Your task to perform on an android device: Open calendar and show me the fourth week of next month Image 0: 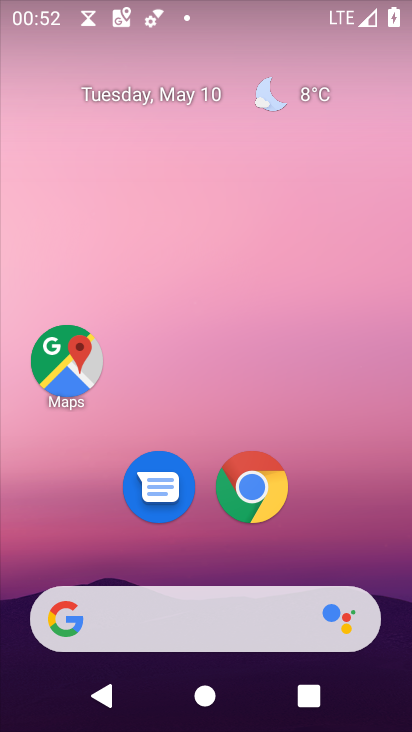
Step 0: drag from (203, 546) to (243, 64)
Your task to perform on an android device: Open calendar and show me the fourth week of next month Image 1: 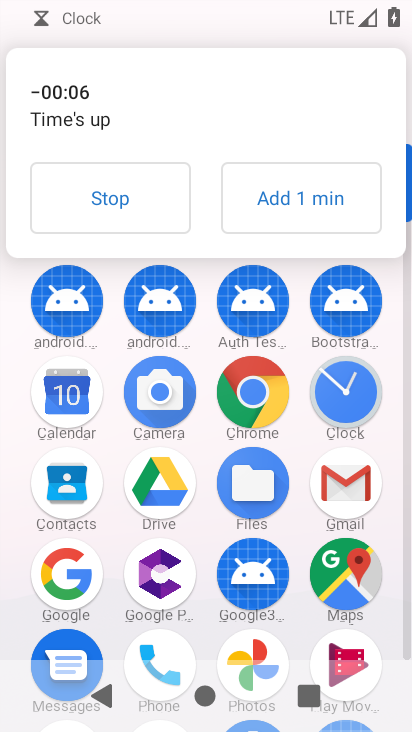
Step 1: click (117, 191)
Your task to perform on an android device: Open calendar and show me the fourth week of next month Image 2: 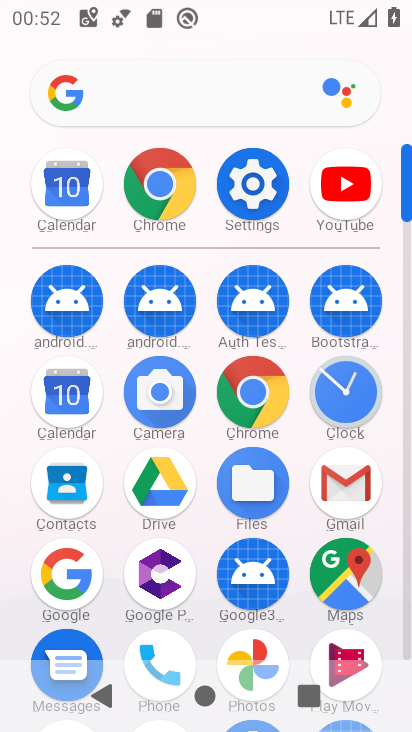
Step 2: click (71, 388)
Your task to perform on an android device: Open calendar and show me the fourth week of next month Image 3: 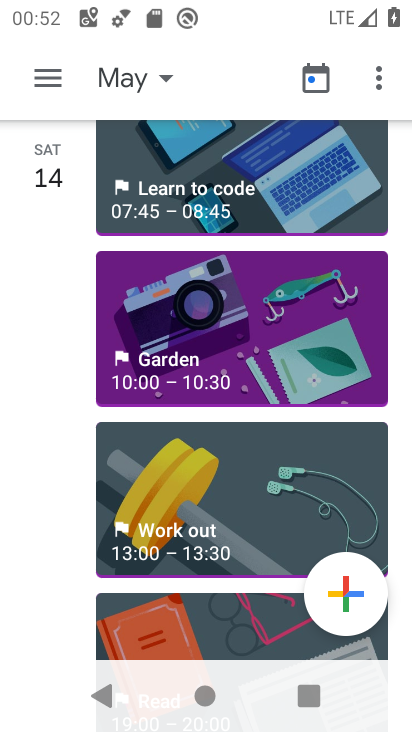
Step 3: click (44, 79)
Your task to perform on an android device: Open calendar and show me the fourth week of next month Image 4: 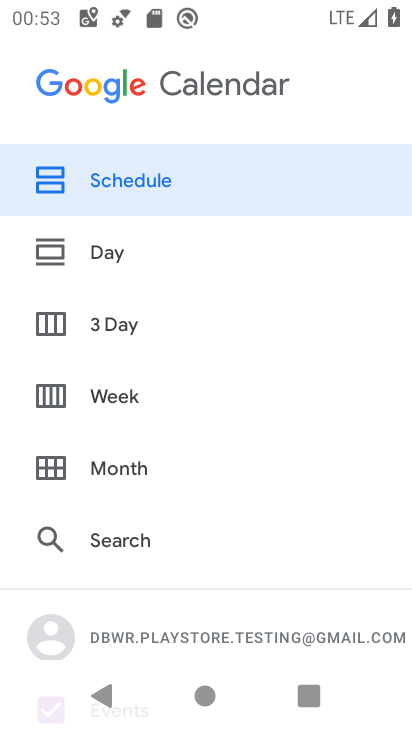
Step 4: click (76, 393)
Your task to perform on an android device: Open calendar and show me the fourth week of next month Image 5: 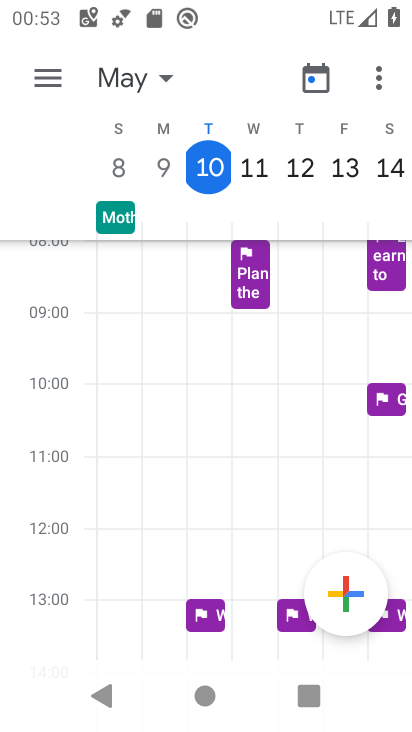
Step 5: drag from (390, 157) to (52, 140)
Your task to perform on an android device: Open calendar and show me the fourth week of next month Image 6: 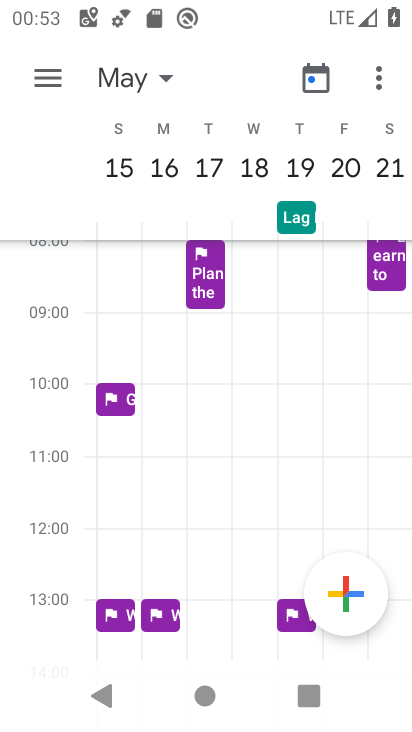
Step 6: drag from (385, 161) to (54, 157)
Your task to perform on an android device: Open calendar and show me the fourth week of next month Image 7: 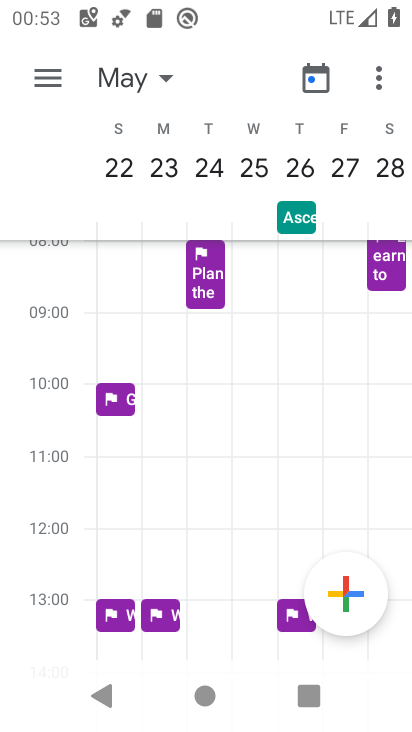
Step 7: drag from (380, 171) to (68, 171)
Your task to perform on an android device: Open calendar and show me the fourth week of next month Image 8: 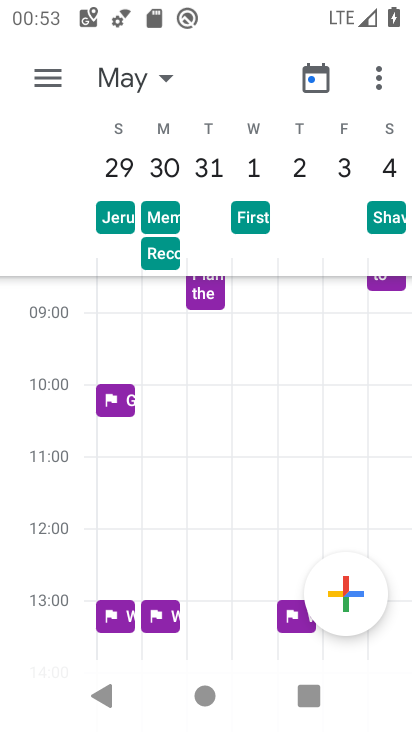
Step 8: drag from (377, 171) to (112, 167)
Your task to perform on an android device: Open calendar and show me the fourth week of next month Image 9: 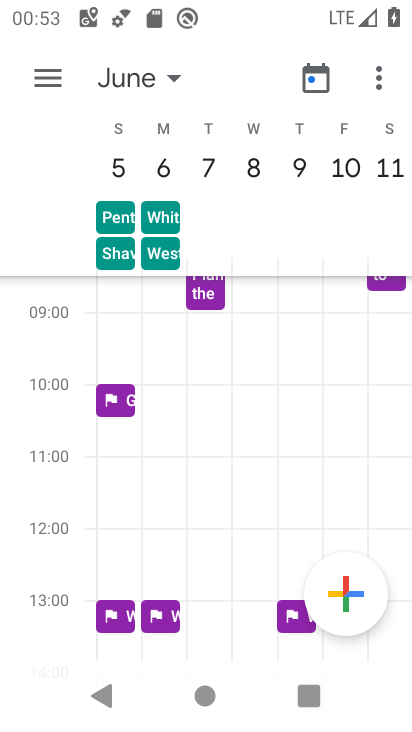
Step 9: drag from (383, 169) to (79, 178)
Your task to perform on an android device: Open calendar and show me the fourth week of next month Image 10: 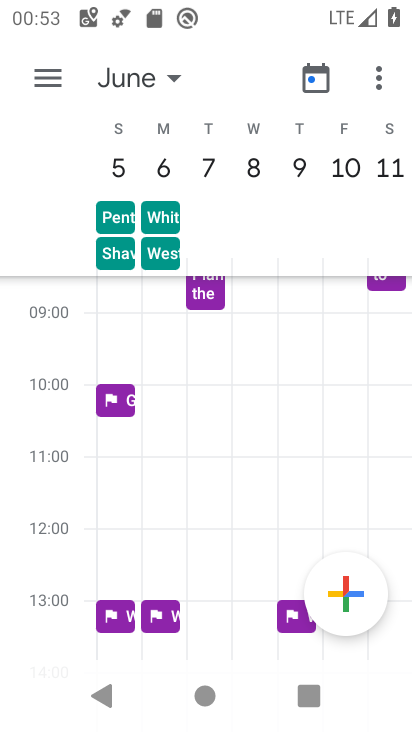
Step 10: drag from (387, 163) to (99, 149)
Your task to perform on an android device: Open calendar and show me the fourth week of next month Image 11: 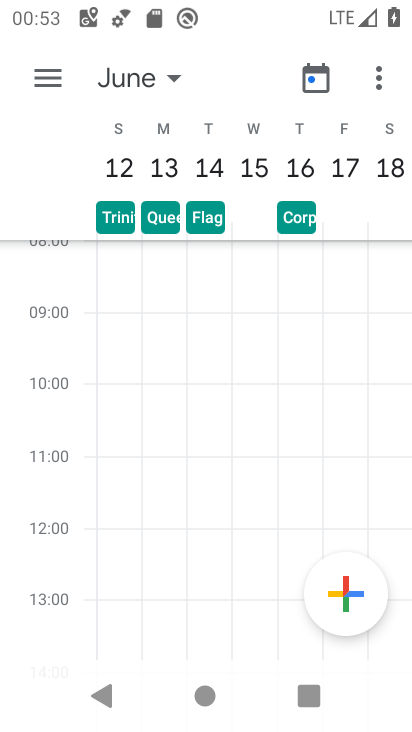
Step 11: drag from (385, 163) to (88, 168)
Your task to perform on an android device: Open calendar and show me the fourth week of next month Image 12: 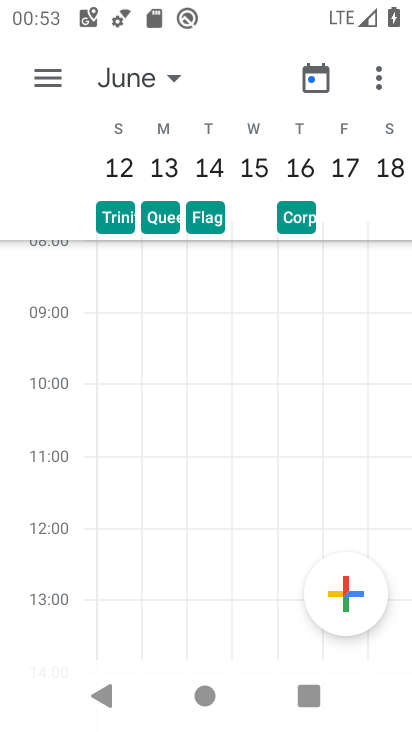
Step 12: drag from (391, 163) to (43, 168)
Your task to perform on an android device: Open calendar and show me the fourth week of next month Image 13: 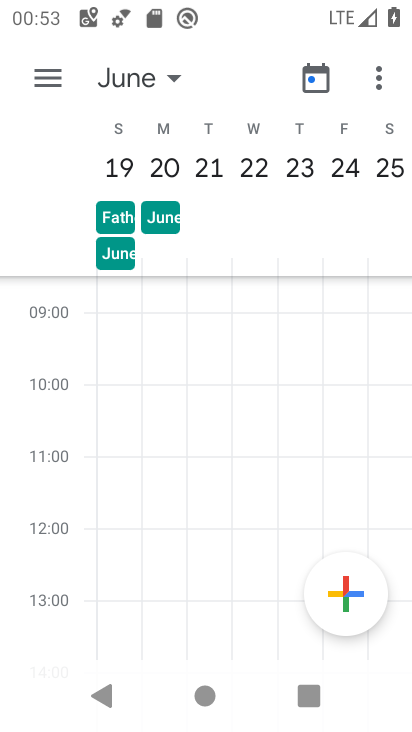
Step 13: click (122, 161)
Your task to perform on an android device: Open calendar and show me the fourth week of next month Image 14: 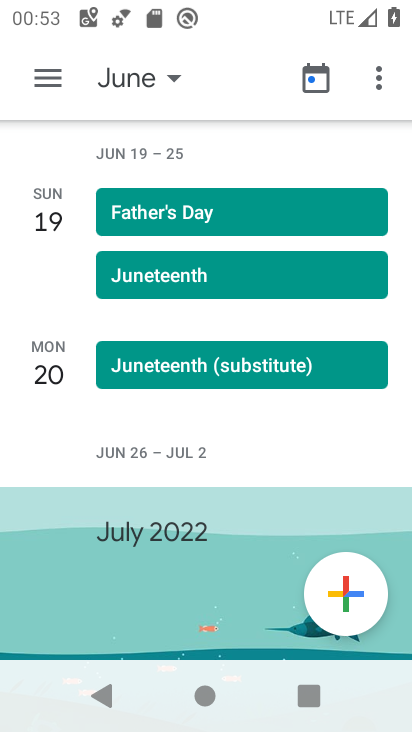
Step 14: task complete